Your task to perform on an android device: Turn on the flashlight Image 0: 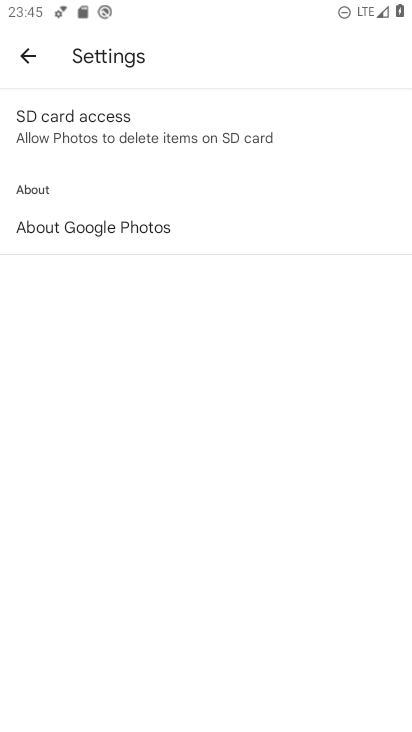
Step 0: press home button
Your task to perform on an android device: Turn on the flashlight Image 1: 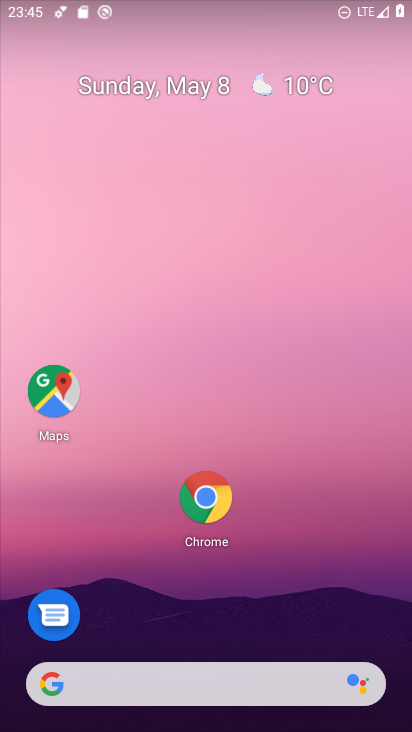
Step 1: drag from (330, 571) to (313, 24)
Your task to perform on an android device: Turn on the flashlight Image 2: 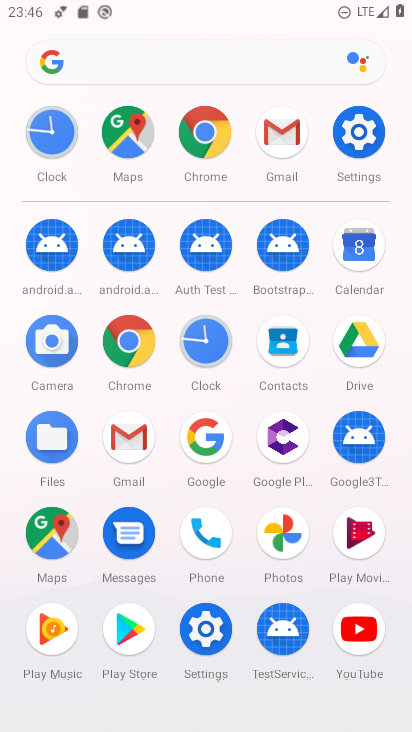
Step 2: click (358, 142)
Your task to perform on an android device: Turn on the flashlight Image 3: 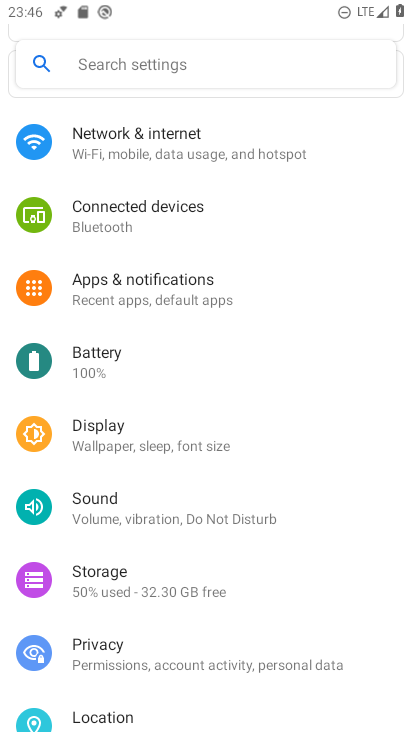
Step 3: click (121, 447)
Your task to perform on an android device: Turn on the flashlight Image 4: 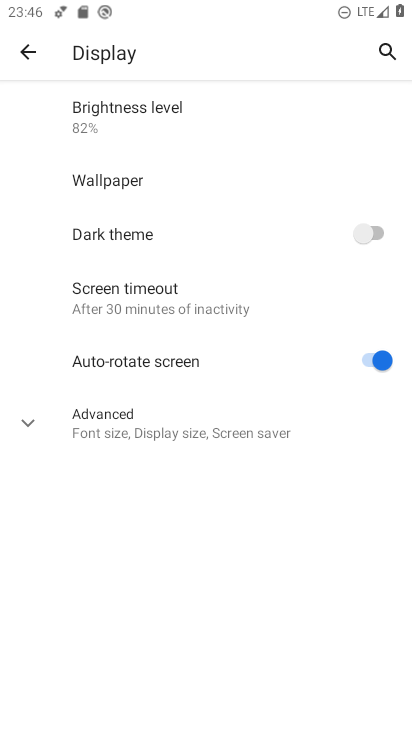
Step 4: task complete